Your task to perform on an android device: make emails show in primary in the gmail app Image 0: 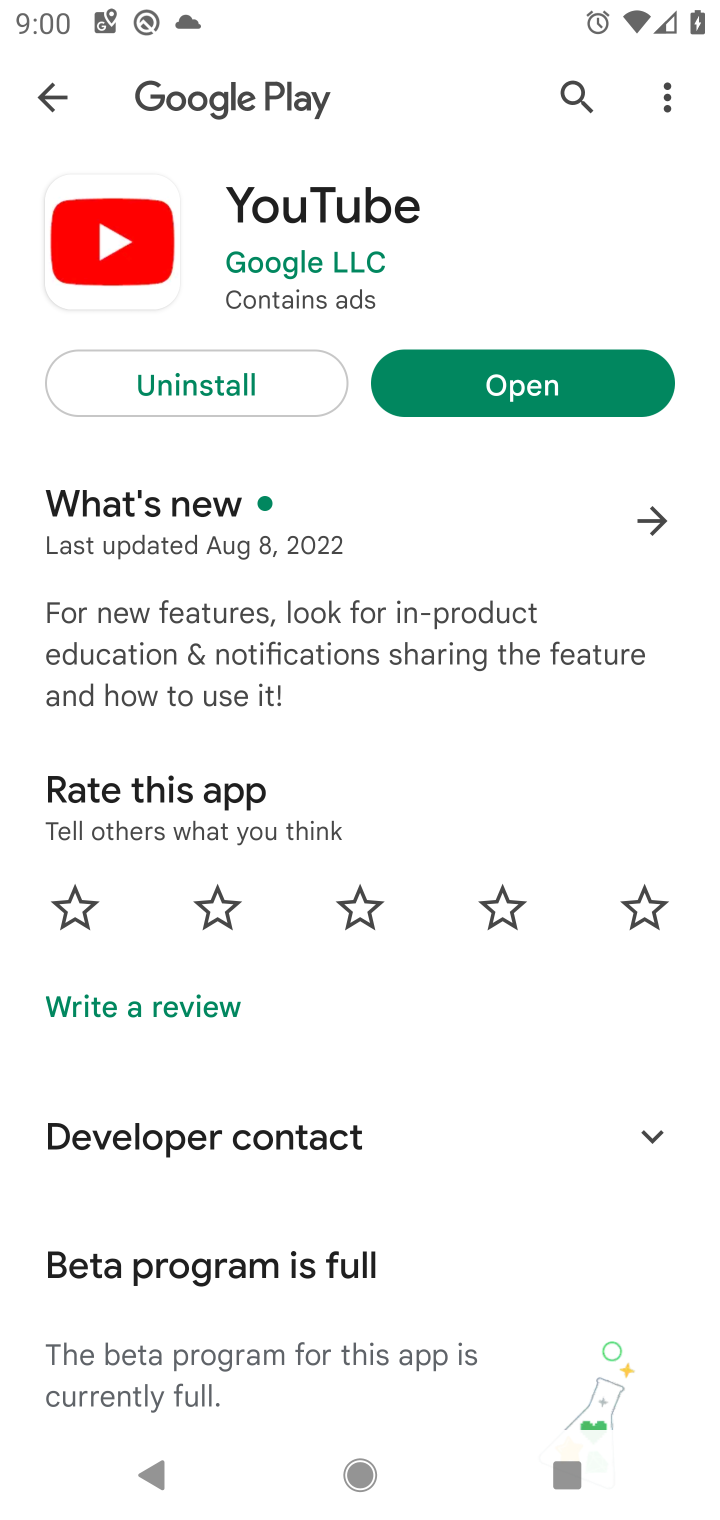
Step 0: press home button
Your task to perform on an android device: make emails show in primary in the gmail app Image 1: 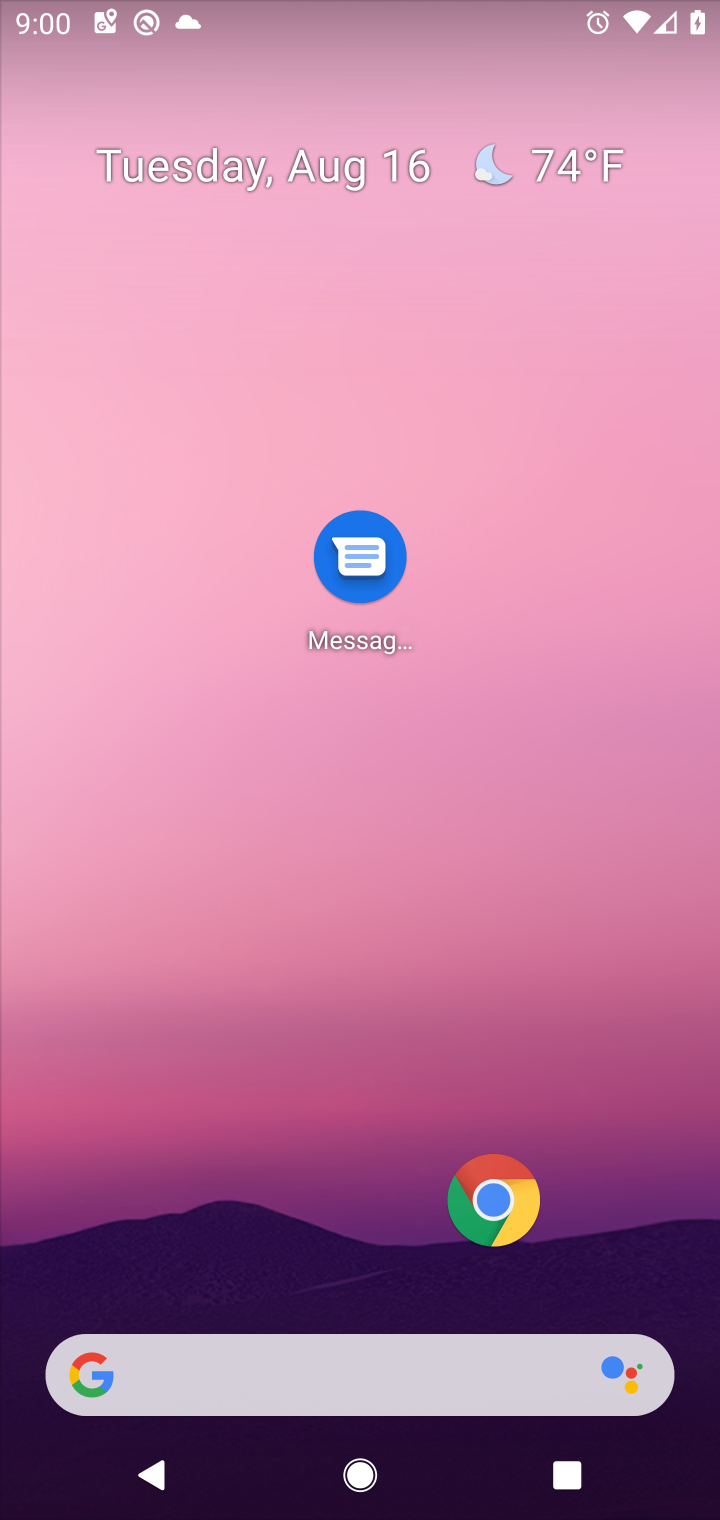
Step 1: drag from (91, 1415) to (410, 325)
Your task to perform on an android device: make emails show in primary in the gmail app Image 2: 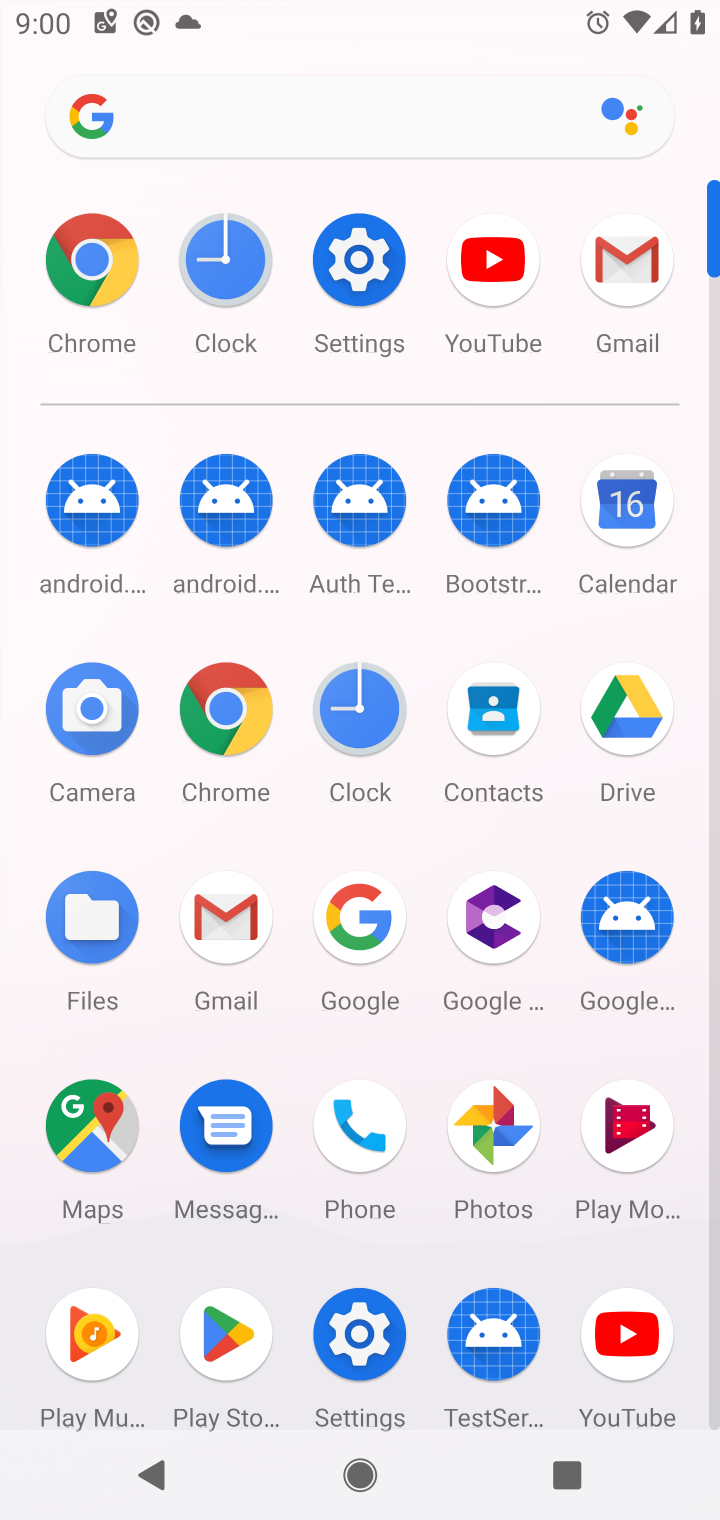
Step 2: click (226, 922)
Your task to perform on an android device: make emails show in primary in the gmail app Image 3: 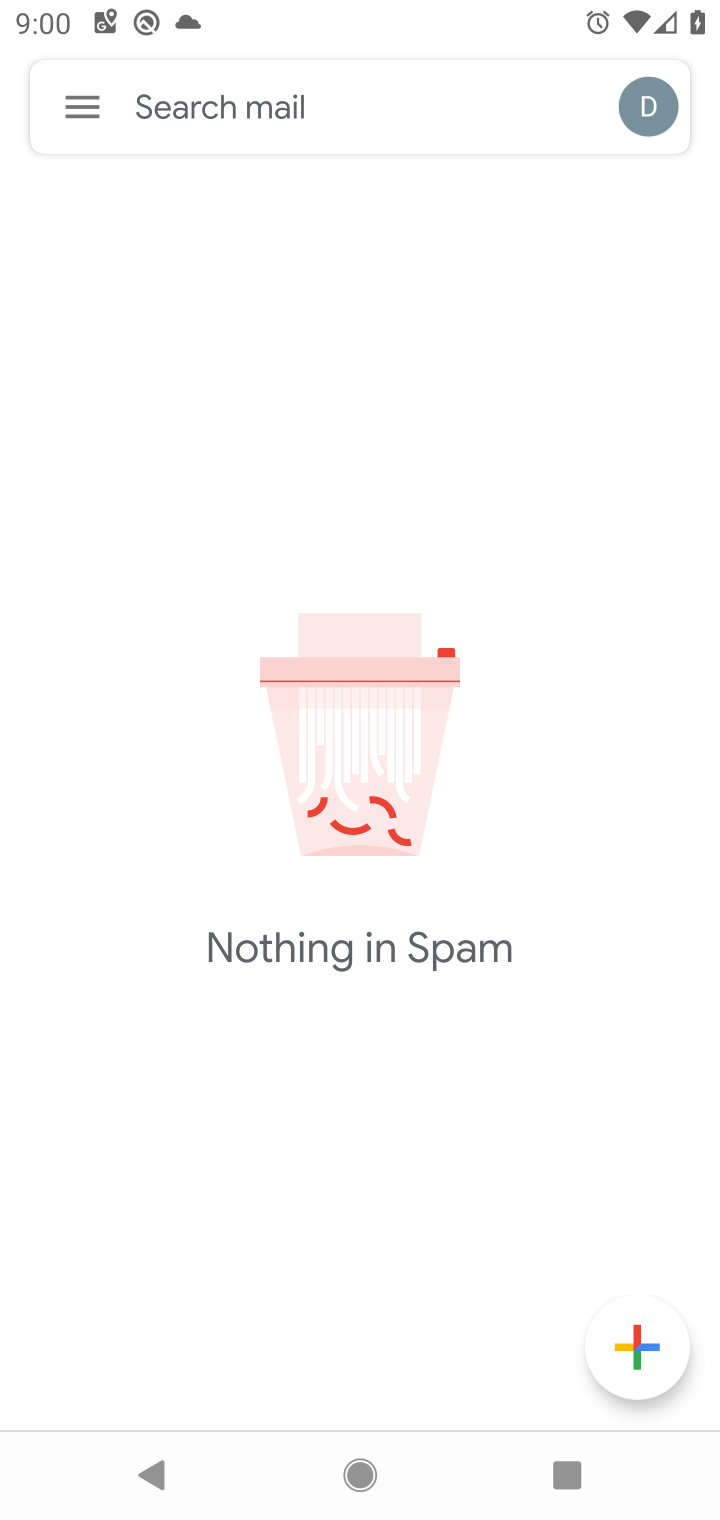
Step 3: click (81, 97)
Your task to perform on an android device: make emails show in primary in the gmail app Image 4: 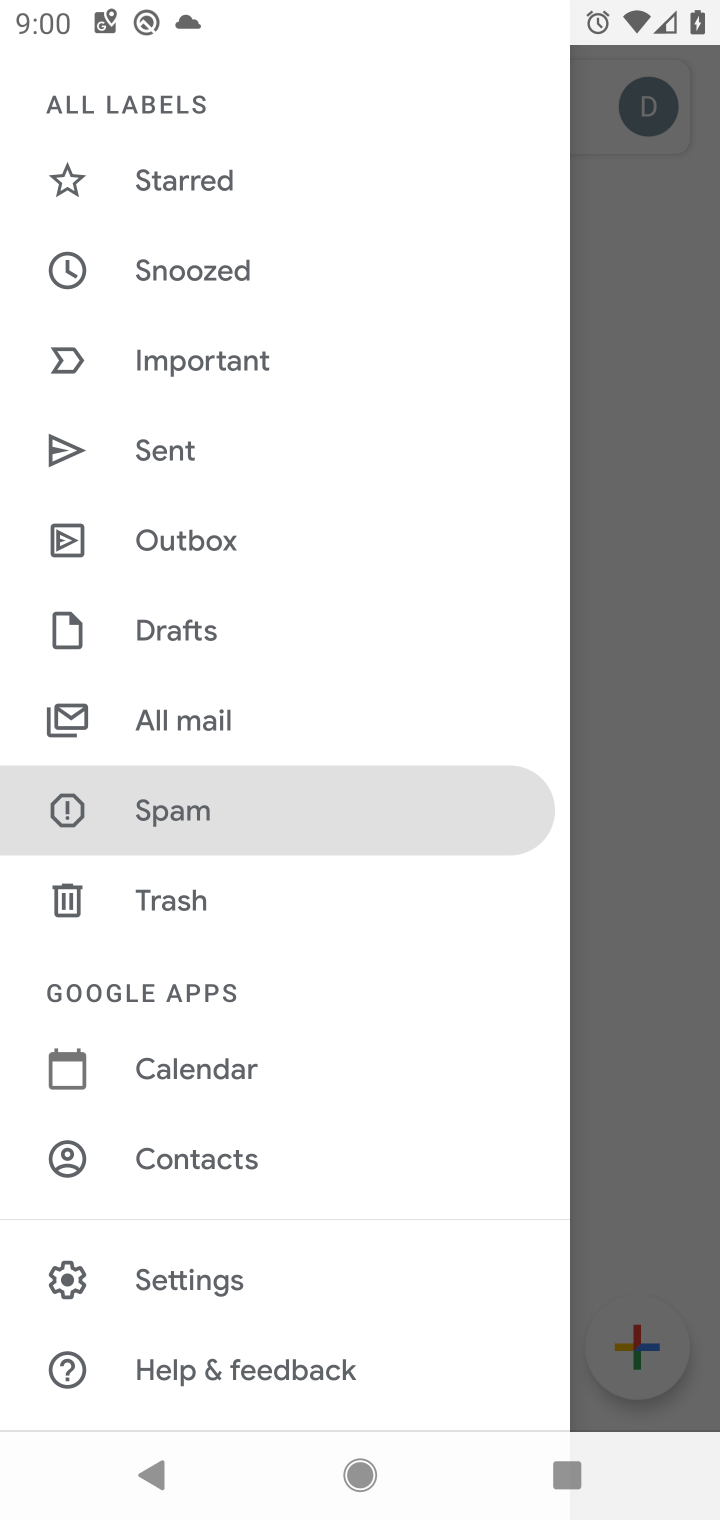
Step 4: drag from (320, 249) to (376, 1077)
Your task to perform on an android device: make emails show in primary in the gmail app Image 5: 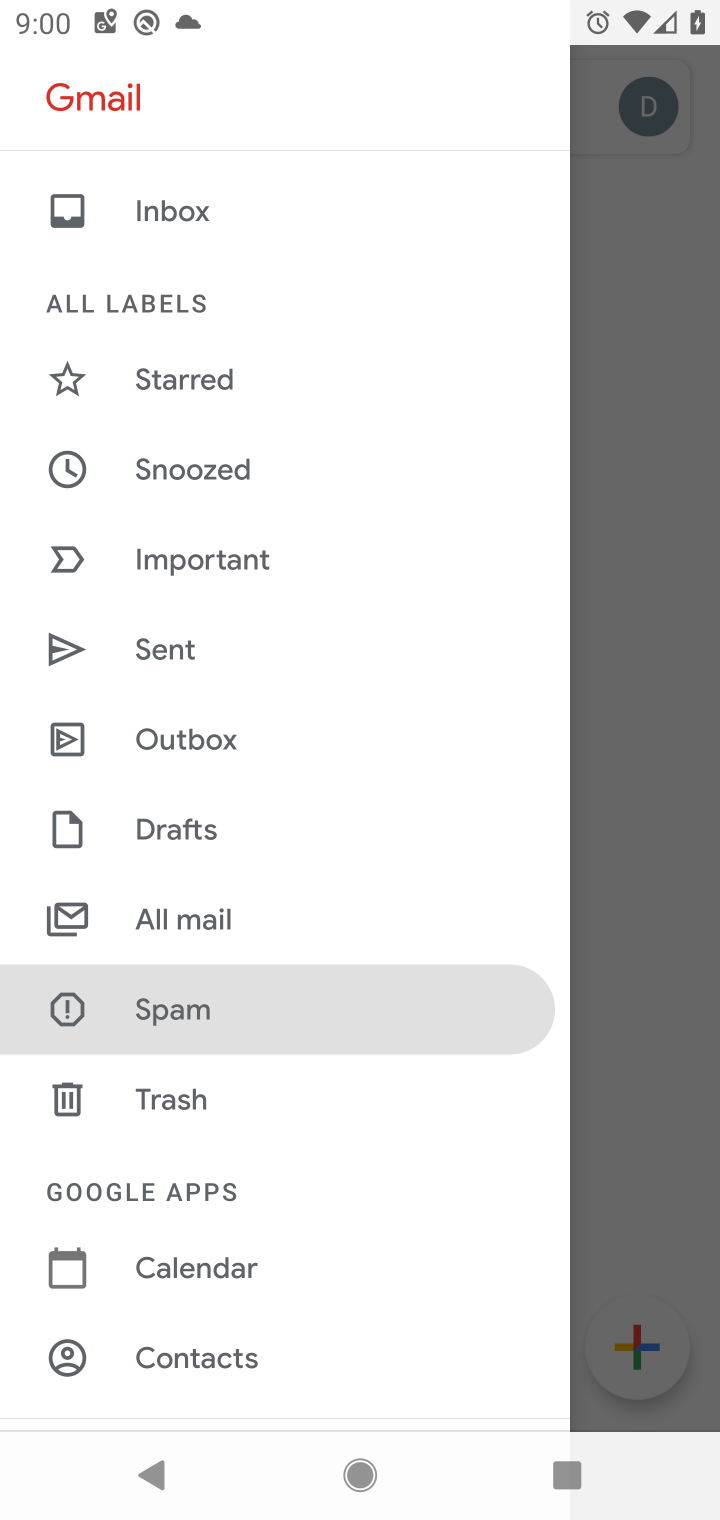
Step 5: drag from (336, 1299) to (435, 739)
Your task to perform on an android device: make emails show in primary in the gmail app Image 6: 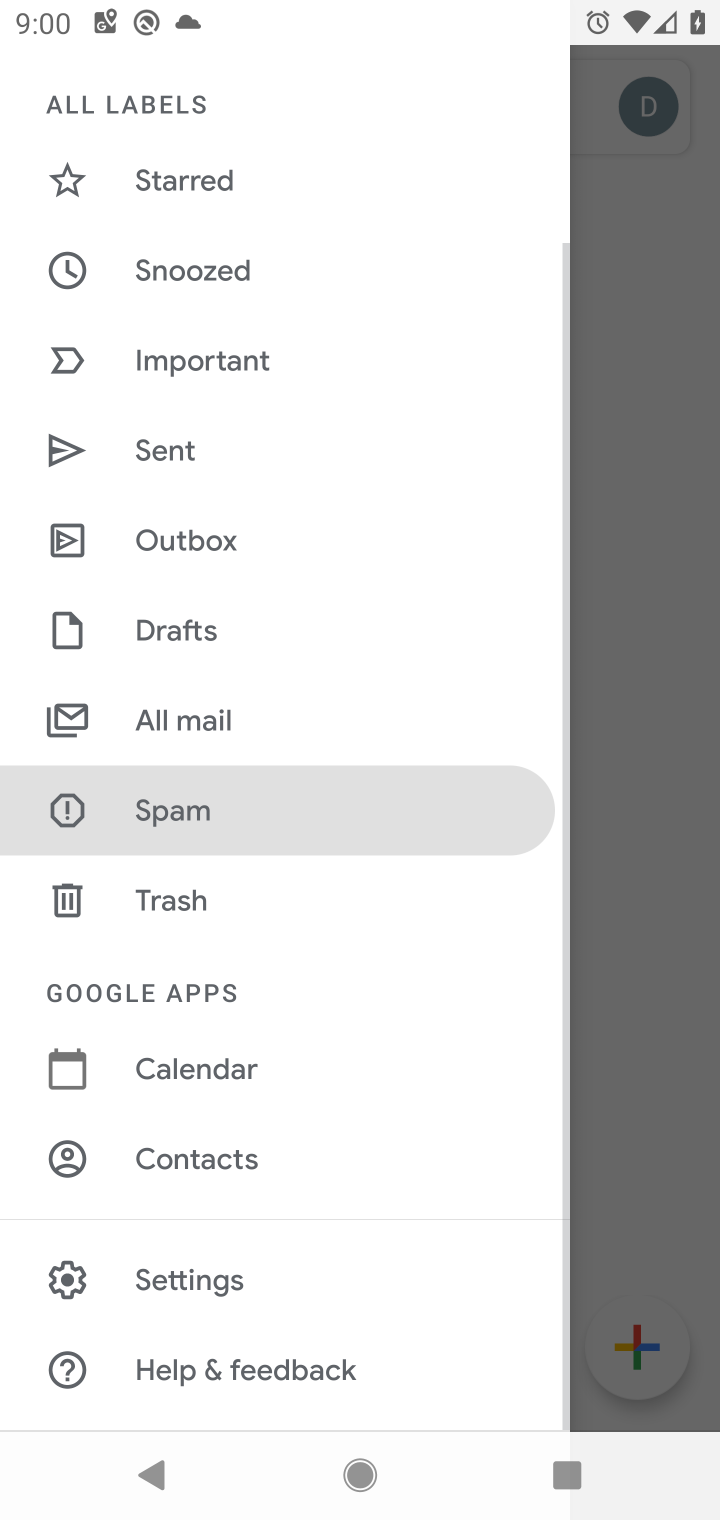
Step 6: click (187, 1281)
Your task to perform on an android device: make emails show in primary in the gmail app Image 7: 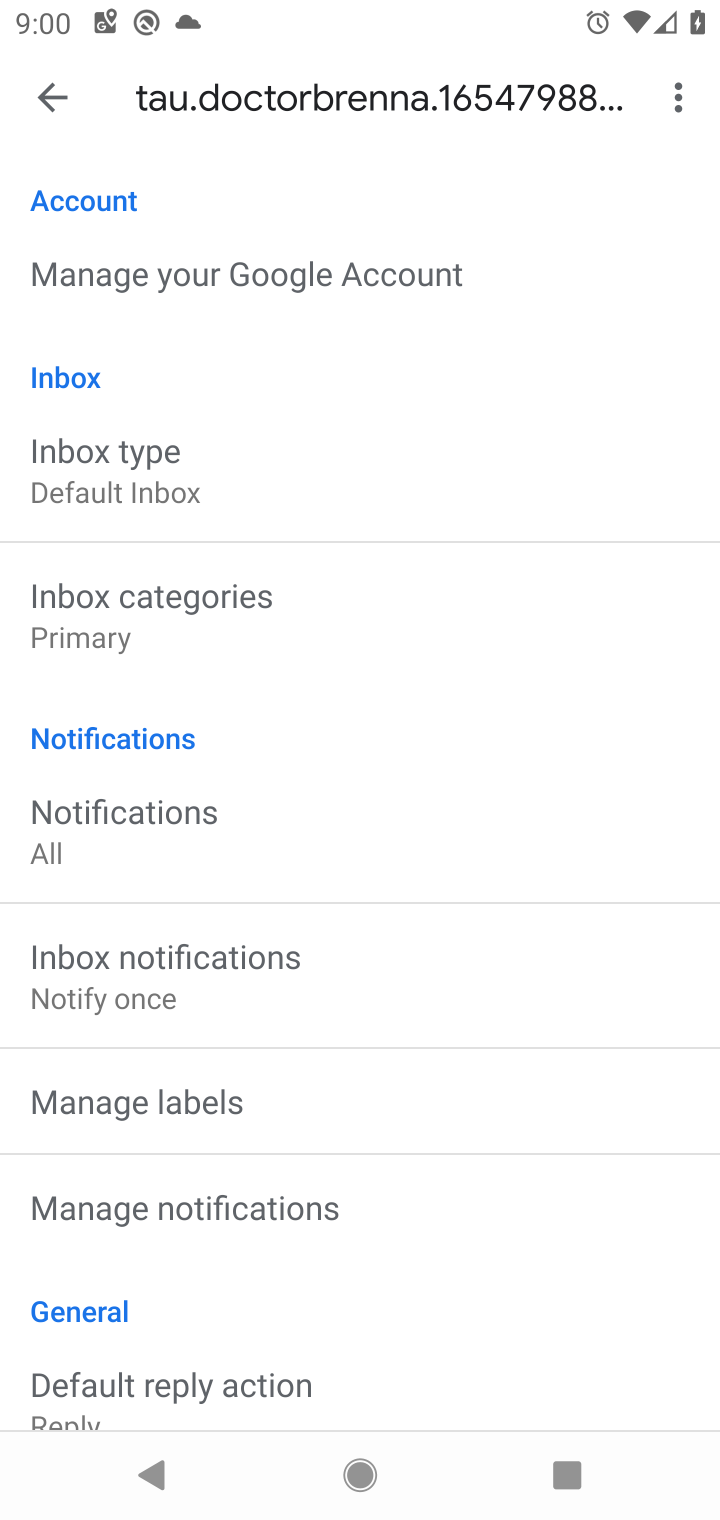
Step 7: task complete